Your task to perform on an android device: Clear the shopping cart on ebay. Search for bose soundlink mini on ebay, select the first entry, add it to the cart, then select checkout. Image 0: 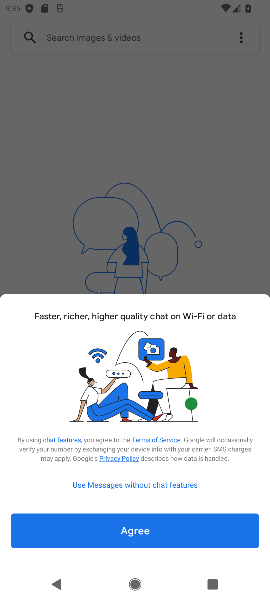
Step 0: press home button
Your task to perform on an android device: Clear the shopping cart on ebay. Search for bose soundlink mini on ebay, select the first entry, add it to the cart, then select checkout. Image 1: 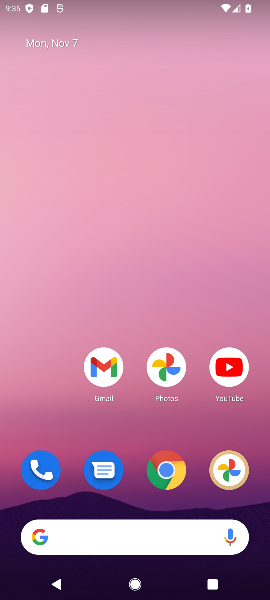
Step 1: click (165, 470)
Your task to perform on an android device: Clear the shopping cart on ebay. Search for bose soundlink mini on ebay, select the first entry, add it to the cart, then select checkout. Image 2: 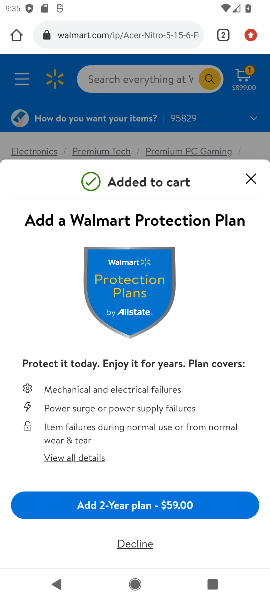
Step 2: click (93, 28)
Your task to perform on an android device: Clear the shopping cart on ebay. Search for bose soundlink mini on ebay, select the first entry, add it to the cart, then select checkout. Image 3: 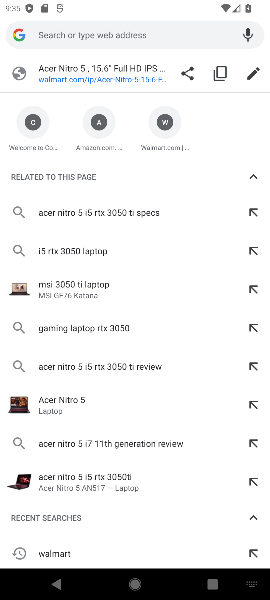
Step 3: type "ebay"
Your task to perform on an android device: Clear the shopping cart on ebay. Search for bose soundlink mini on ebay, select the first entry, add it to the cart, then select checkout. Image 4: 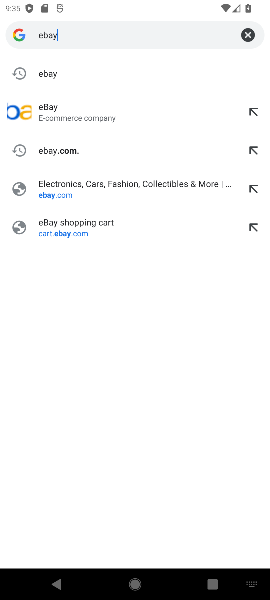
Step 4: click (108, 109)
Your task to perform on an android device: Clear the shopping cart on ebay. Search for bose soundlink mini on ebay, select the first entry, add it to the cart, then select checkout. Image 5: 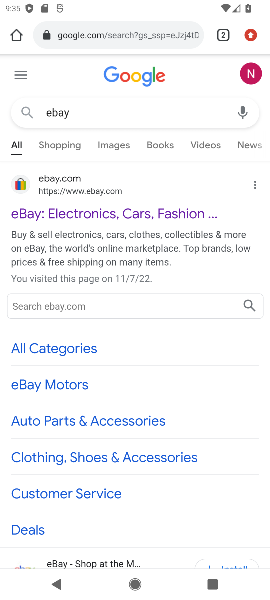
Step 5: click (52, 221)
Your task to perform on an android device: Clear the shopping cart on ebay. Search for bose soundlink mini on ebay, select the first entry, add it to the cart, then select checkout. Image 6: 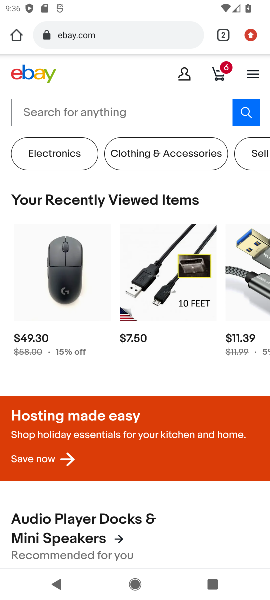
Step 6: click (226, 71)
Your task to perform on an android device: Clear the shopping cart on ebay. Search for bose soundlink mini on ebay, select the first entry, add it to the cart, then select checkout. Image 7: 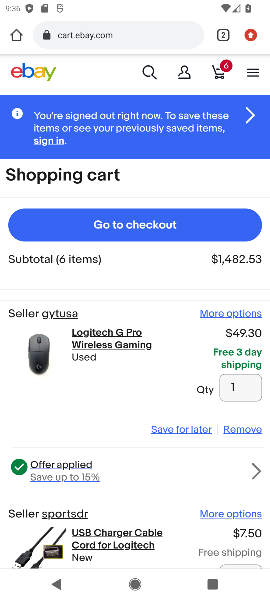
Step 7: click (236, 433)
Your task to perform on an android device: Clear the shopping cart on ebay. Search for bose soundlink mini on ebay, select the first entry, add it to the cart, then select checkout. Image 8: 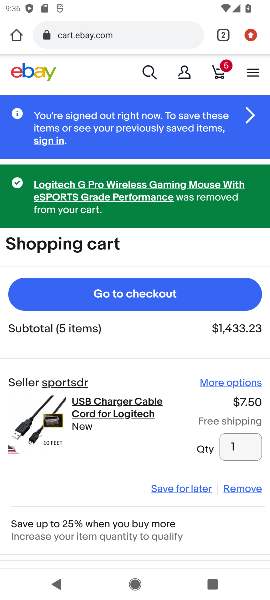
Step 8: click (238, 490)
Your task to perform on an android device: Clear the shopping cart on ebay. Search for bose soundlink mini on ebay, select the first entry, add it to the cart, then select checkout. Image 9: 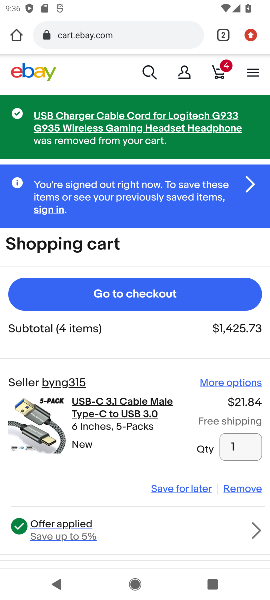
Step 9: click (238, 490)
Your task to perform on an android device: Clear the shopping cart on ebay. Search for bose soundlink mini on ebay, select the first entry, add it to the cart, then select checkout. Image 10: 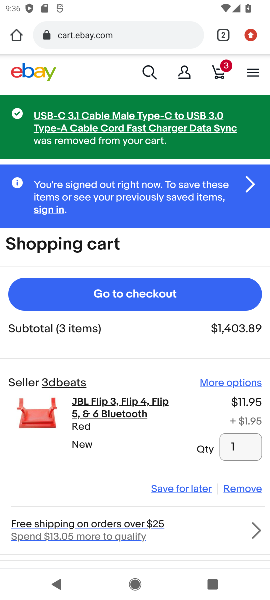
Step 10: click (238, 490)
Your task to perform on an android device: Clear the shopping cart on ebay. Search for bose soundlink mini on ebay, select the first entry, add it to the cart, then select checkout. Image 11: 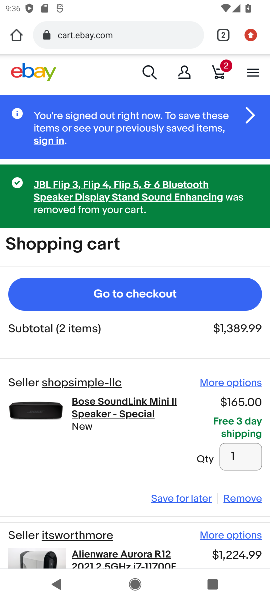
Step 11: click (237, 498)
Your task to perform on an android device: Clear the shopping cart on ebay. Search for bose soundlink mini on ebay, select the first entry, add it to the cart, then select checkout. Image 12: 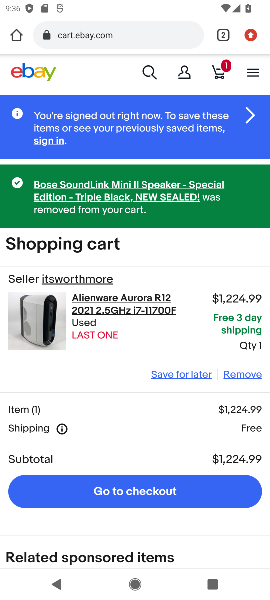
Step 12: click (234, 373)
Your task to perform on an android device: Clear the shopping cart on ebay. Search for bose soundlink mini on ebay, select the first entry, add it to the cart, then select checkout. Image 13: 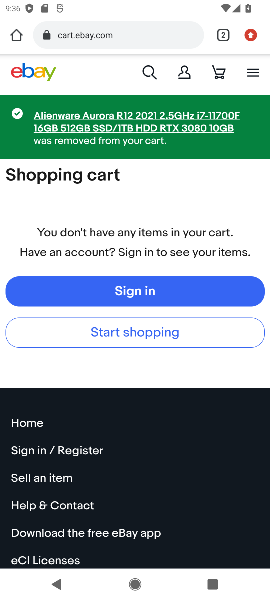
Step 13: click (224, 69)
Your task to perform on an android device: Clear the shopping cart on ebay. Search for bose soundlink mini on ebay, select the first entry, add it to the cart, then select checkout. Image 14: 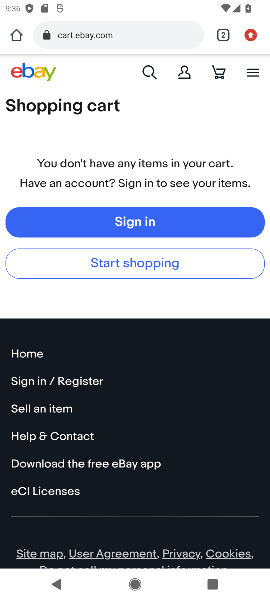
Step 14: click (143, 80)
Your task to perform on an android device: Clear the shopping cart on ebay. Search for bose soundlink mini on ebay, select the first entry, add it to the cart, then select checkout. Image 15: 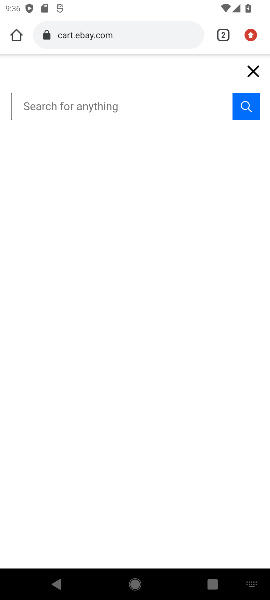
Step 15: type "boss soundlink"
Your task to perform on an android device: Clear the shopping cart on ebay. Search for bose soundlink mini on ebay, select the first entry, add it to the cart, then select checkout. Image 16: 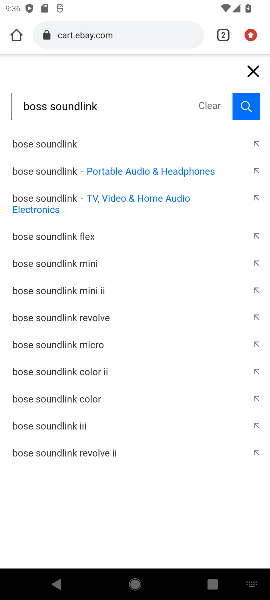
Step 16: click (244, 108)
Your task to perform on an android device: Clear the shopping cart on ebay. Search for bose soundlink mini on ebay, select the first entry, add it to the cart, then select checkout. Image 17: 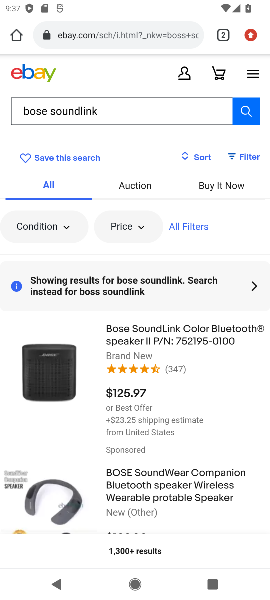
Step 17: click (182, 328)
Your task to perform on an android device: Clear the shopping cart on ebay. Search for bose soundlink mini on ebay, select the first entry, add it to the cart, then select checkout. Image 18: 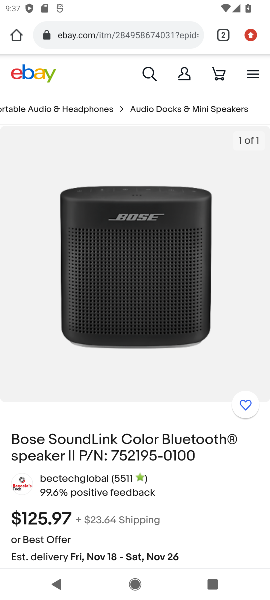
Step 18: drag from (106, 519) to (186, 83)
Your task to perform on an android device: Clear the shopping cart on ebay. Search for bose soundlink mini on ebay, select the first entry, add it to the cart, then select checkout. Image 19: 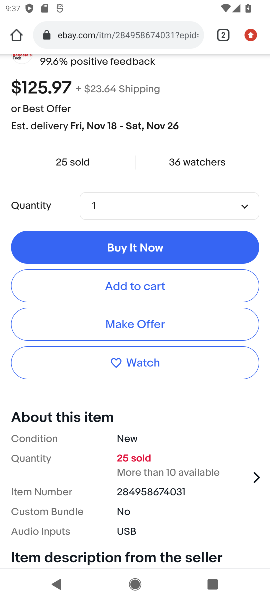
Step 19: click (135, 286)
Your task to perform on an android device: Clear the shopping cart on ebay. Search for bose soundlink mini on ebay, select the first entry, add it to the cart, then select checkout. Image 20: 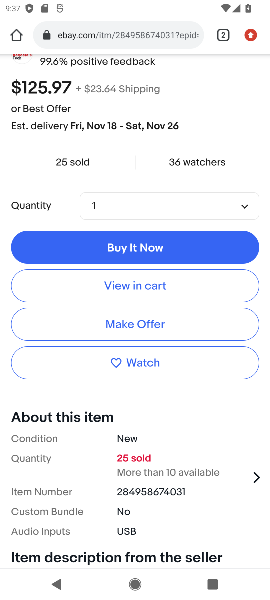
Step 20: click (135, 286)
Your task to perform on an android device: Clear the shopping cart on ebay. Search for bose soundlink mini on ebay, select the first entry, add it to the cart, then select checkout. Image 21: 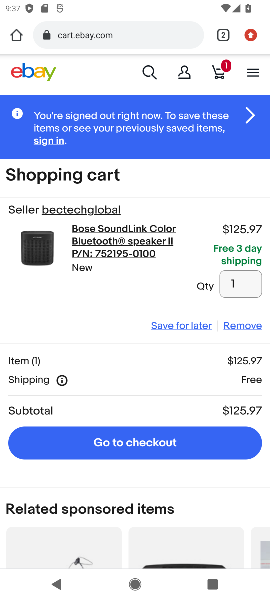
Step 21: click (118, 432)
Your task to perform on an android device: Clear the shopping cart on ebay. Search for bose soundlink mini on ebay, select the first entry, add it to the cart, then select checkout. Image 22: 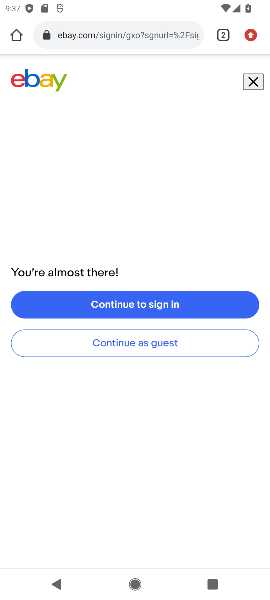
Step 22: task complete